Your task to perform on an android device: open device folders in google photos Image 0: 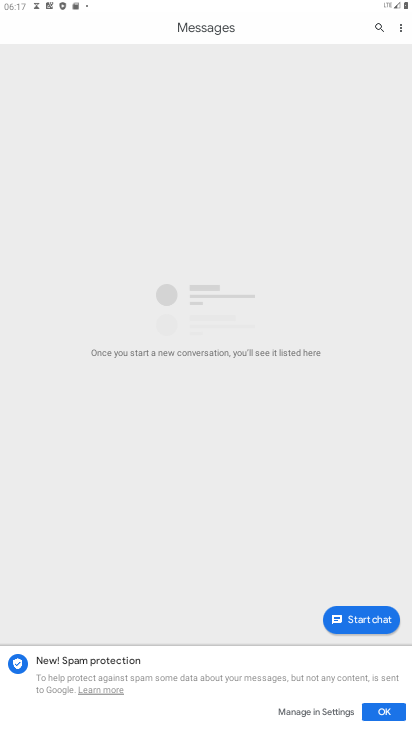
Step 0: press home button
Your task to perform on an android device: open device folders in google photos Image 1: 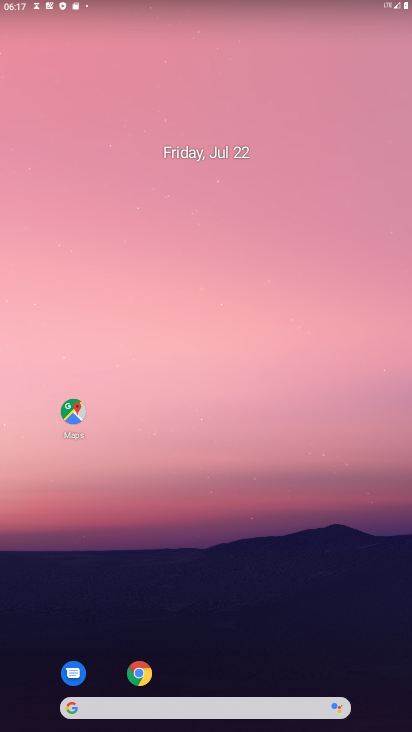
Step 1: drag from (229, 692) to (235, 89)
Your task to perform on an android device: open device folders in google photos Image 2: 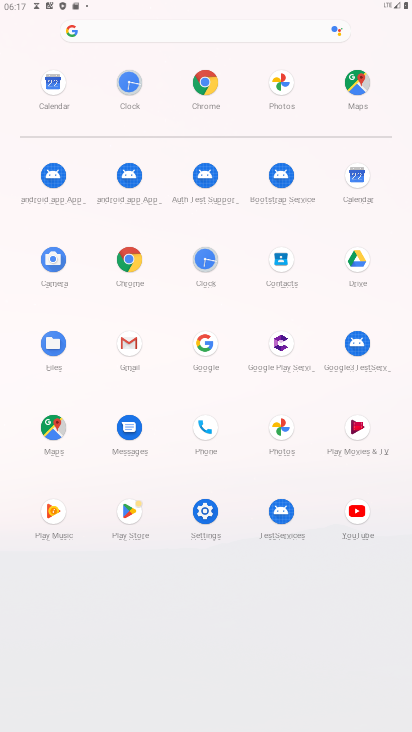
Step 2: click (279, 91)
Your task to perform on an android device: open device folders in google photos Image 3: 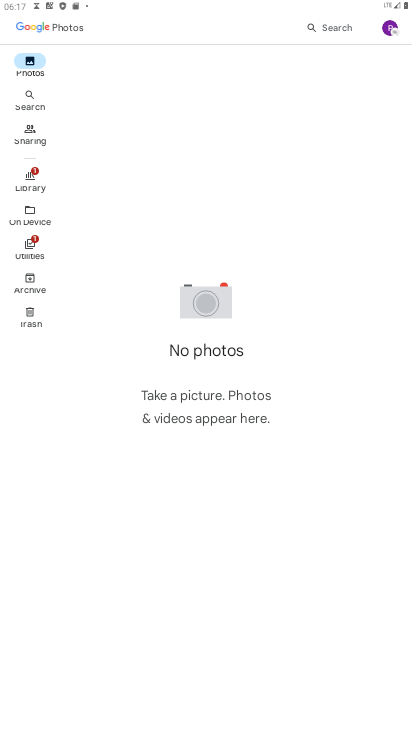
Step 3: click (27, 214)
Your task to perform on an android device: open device folders in google photos Image 4: 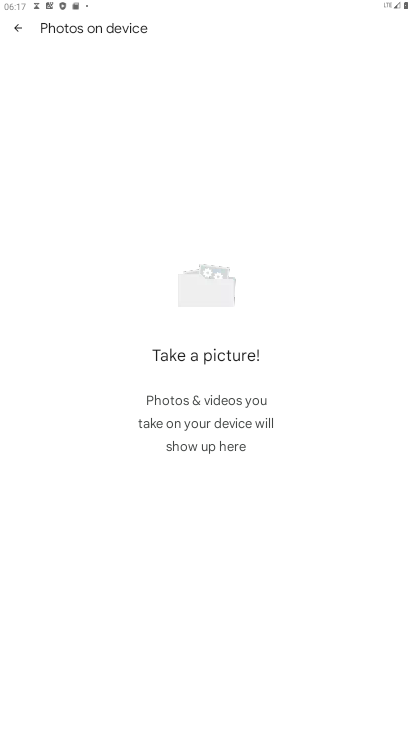
Step 4: task complete